Your task to perform on an android device: star an email in the gmail app Image 0: 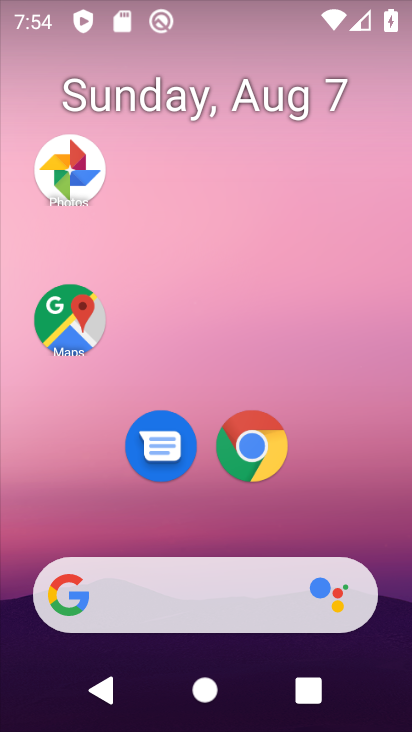
Step 0: drag from (230, 528) to (228, 154)
Your task to perform on an android device: star an email in the gmail app Image 1: 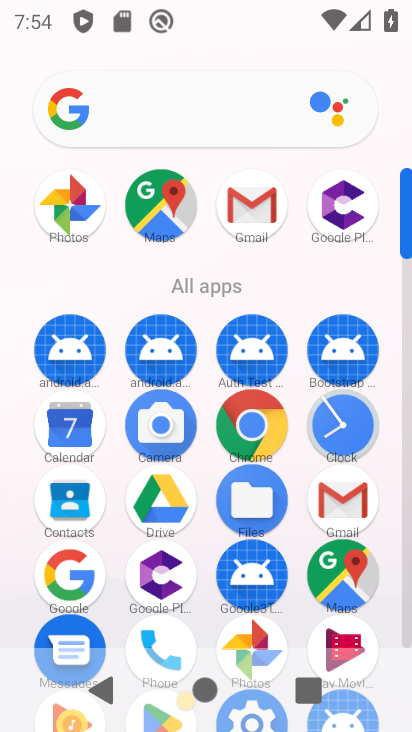
Step 1: click (236, 195)
Your task to perform on an android device: star an email in the gmail app Image 2: 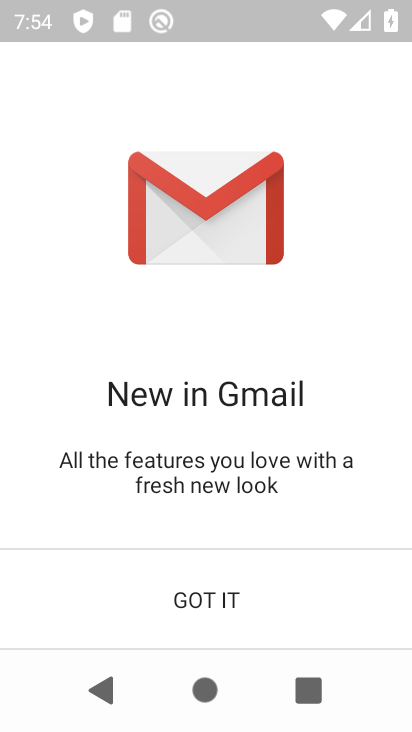
Step 2: click (224, 610)
Your task to perform on an android device: star an email in the gmail app Image 3: 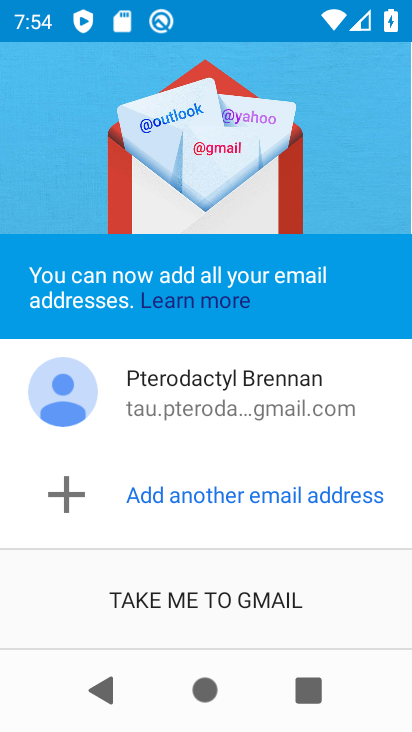
Step 3: click (224, 610)
Your task to perform on an android device: star an email in the gmail app Image 4: 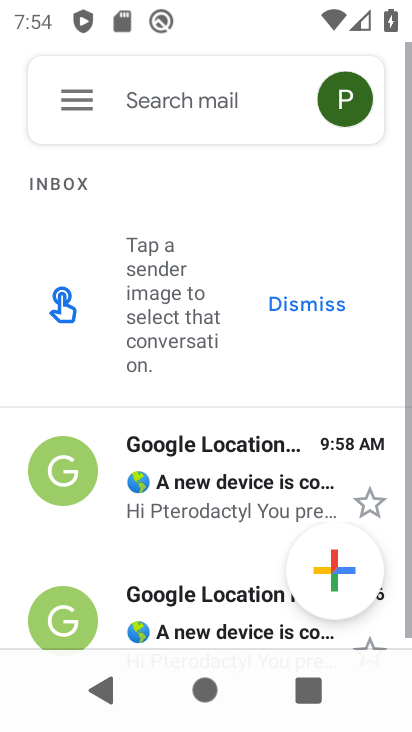
Step 4: click (358, 491)
Your task to perform on an android device: star an email in the gmail app Image 5: 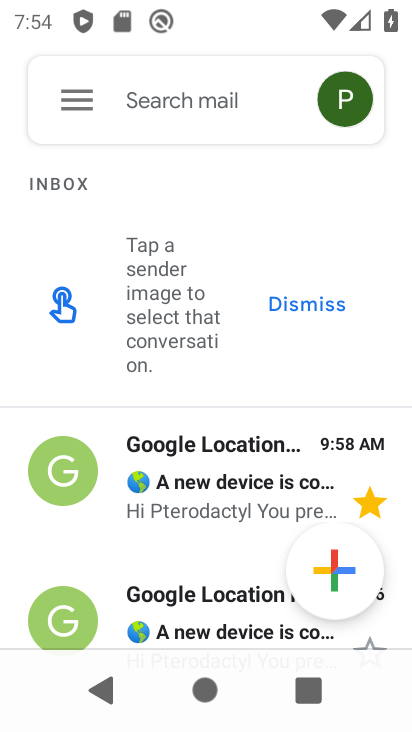
Step 5: task complete